Your task to perform on an android device: turn smart compose on in the gmail app Image 0: 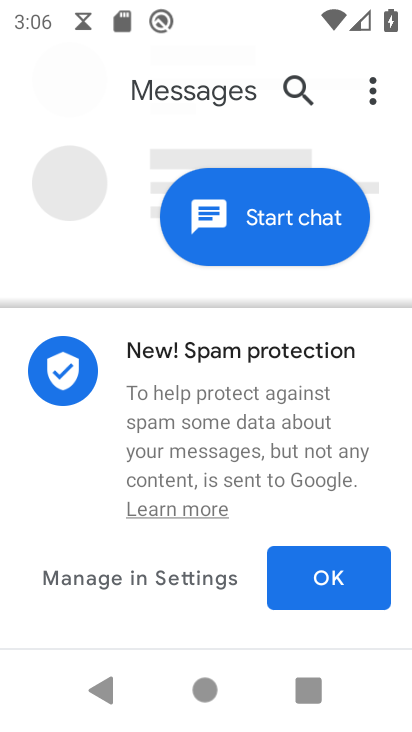
Step 0: press home button
Your task to perform on an android device: turn smart compose on in the gmail app Image 1: 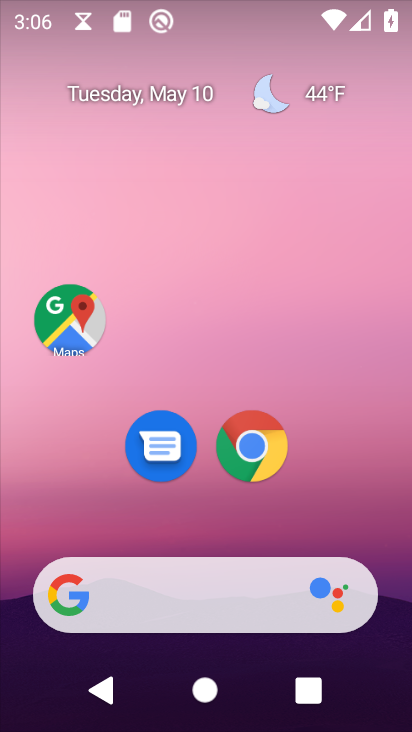
Step 1: drag from (365, 437) to (312, 156)
Your task to perform on an android device: turn smart compose on in the gmail app Image 2: 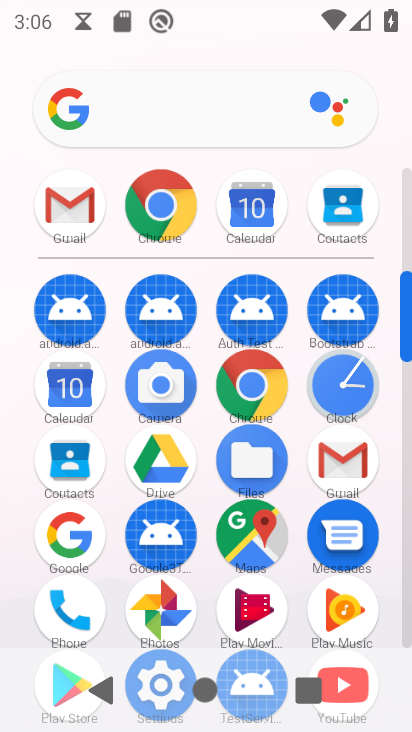
Step 2: click (355, 467)
Your task to perform on an android device: turn smart compose on in the gmail app Image 3: 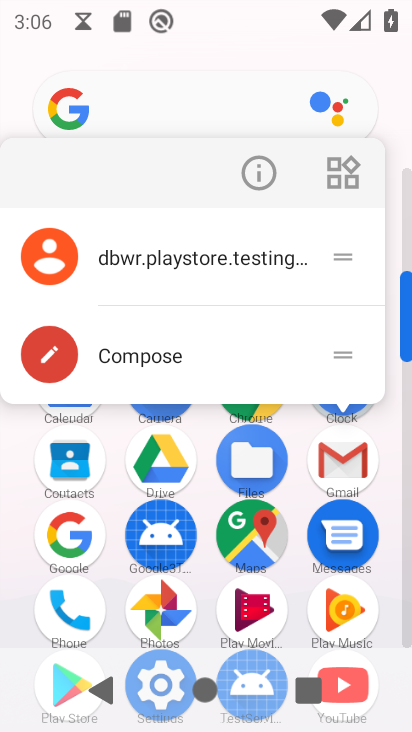
Step 3: click (351, 473)
Your task to perform on an android device: turn smart compose on in the gmail app Image 4: 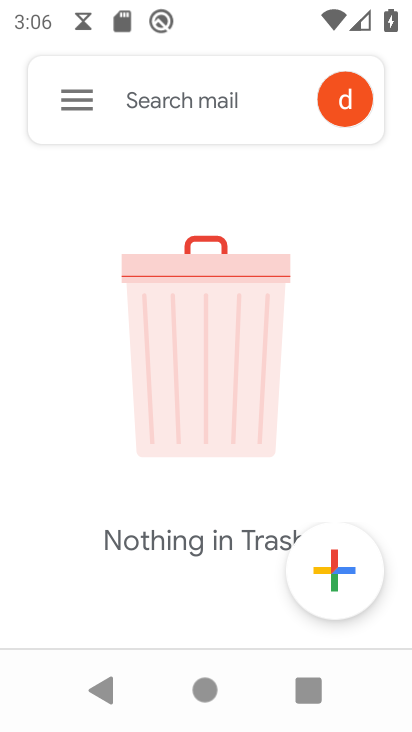
Step 4: click (88, 98)
Your task to perform on an android device: turn smart compose on in the gmail app Image 5: 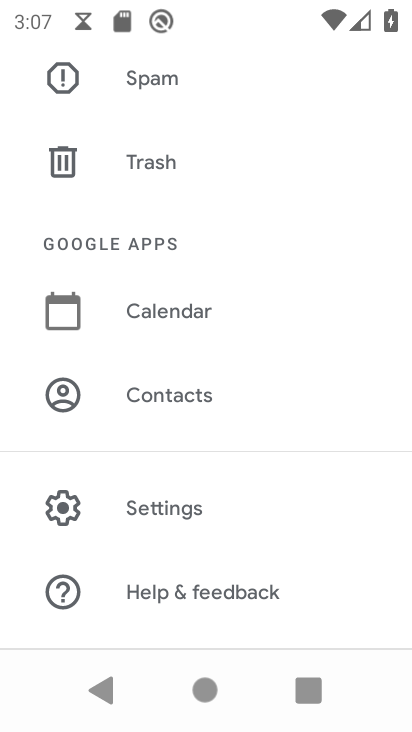
Step 5: click (141, 521)
Your task to perform on an android device: turn smart compose on in the gmail app Image 6: 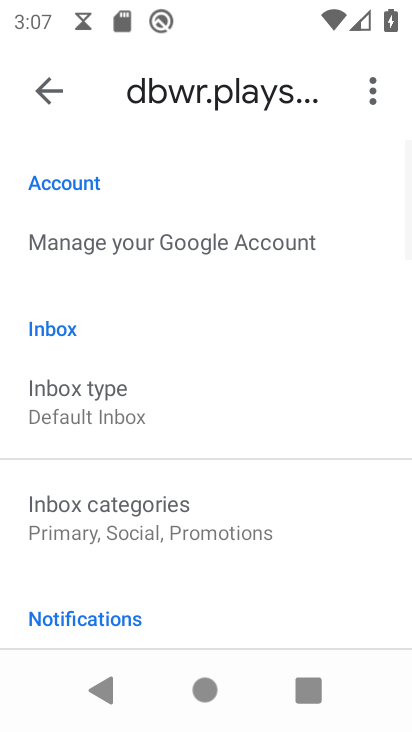
Step 6: task complete